Your task to perform on an android device: Search for razer thresher on walmart, select the first entry, and add it to the cart. Image 0: 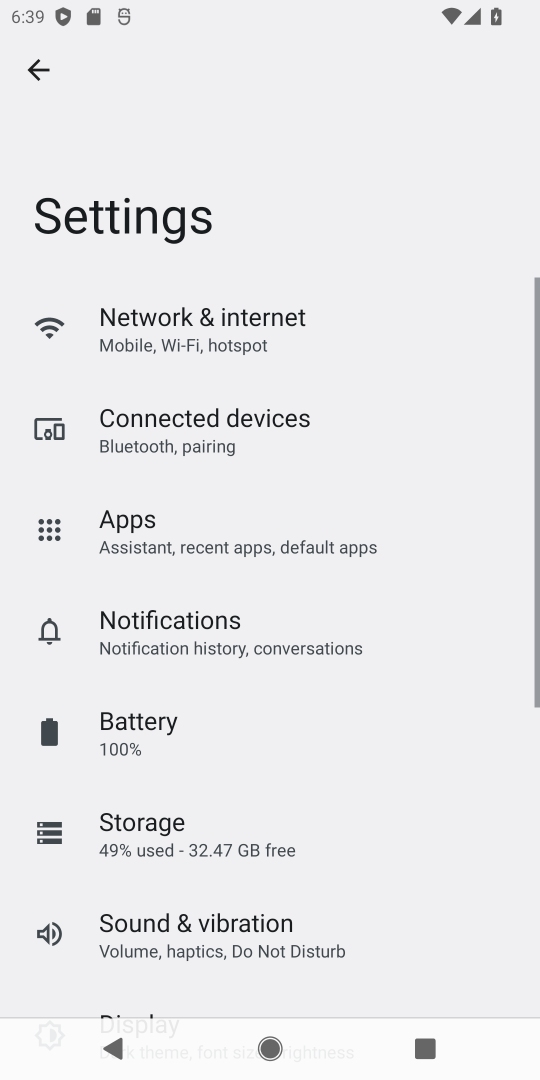
Step 0: press home button
Your task to perform on an android device: Search for razer thresher on walmart, select the first entry, and add it to the cart. Image 1: 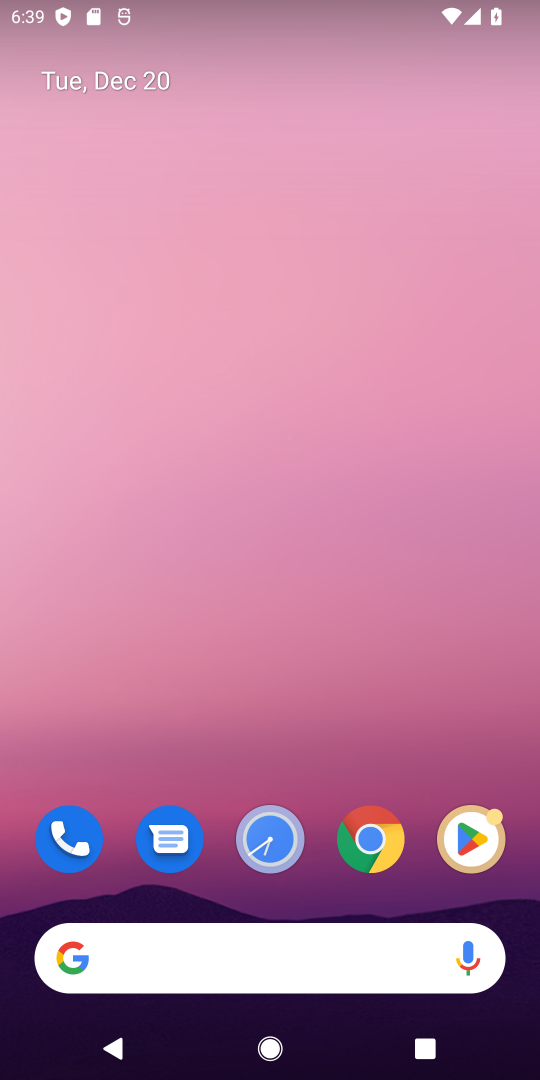
Step 1: click (264, 961)
Your task to perform on an android device: Search for razer thresher on walmart, select the first entry, and add it to the cart. Image 2: 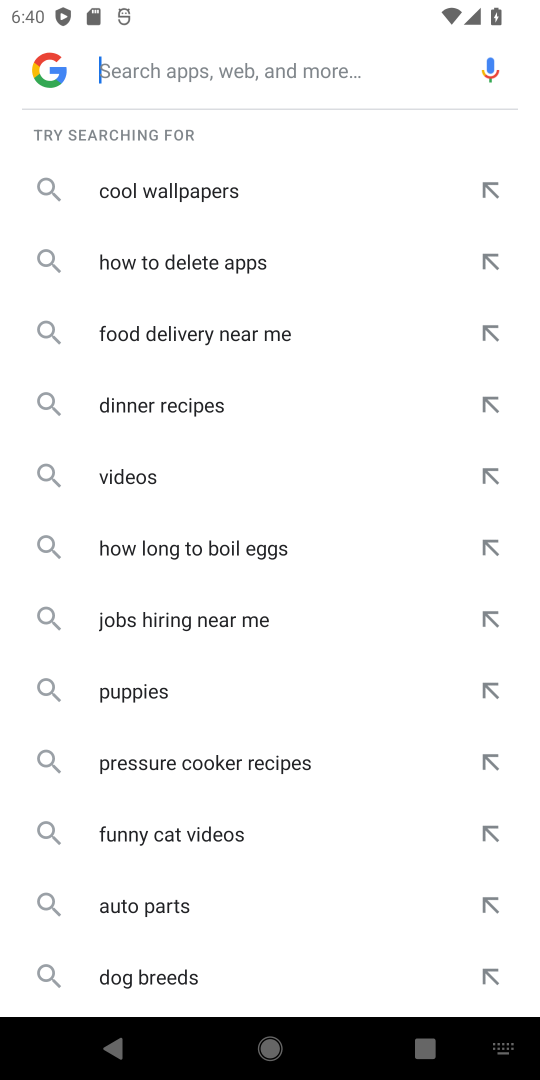
Step 2: type "walmart"
Your task to perform on an android device: Search for razer thresher on walmart, select the first entry, and add it to the cart. Image 3: 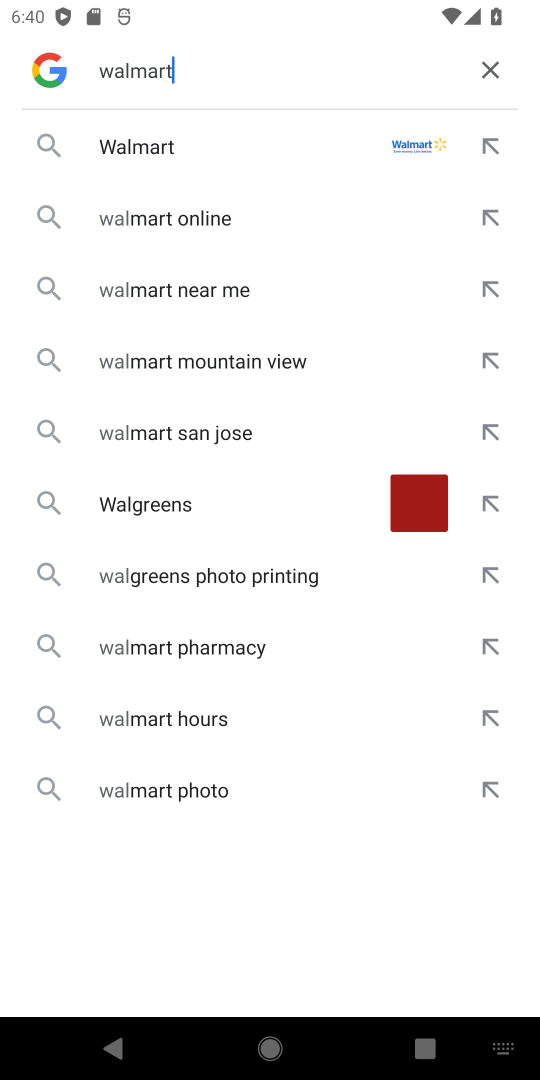
Step 3: type ""
Your task to perform on an android device: Search for razer thresher on walmart, select the first entry, and add it to the cart. Image 4: 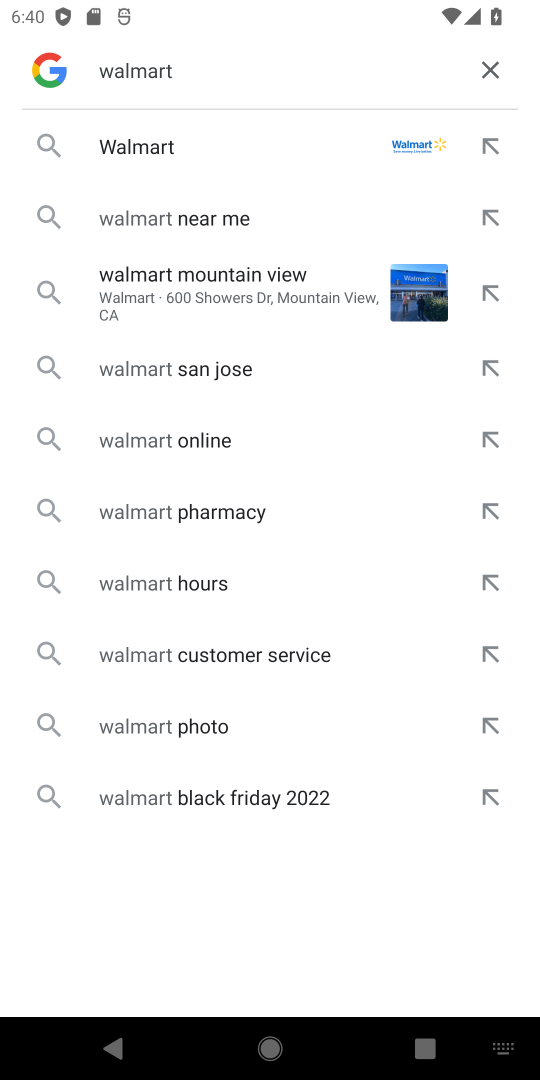
Step 4: click (160, 142)
Your task to perform on an android device: Search for razer thresher on walmart, select the first entry, and add it to the cart. Image 5: 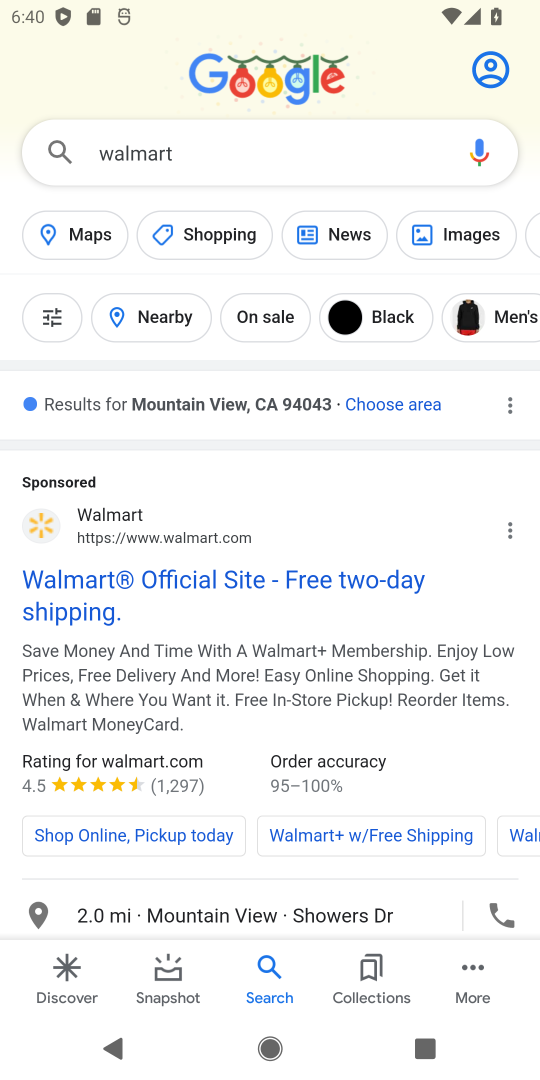
Step 5: click (117, 531)
Your task to perform on an android device: Search for razer thresher on walmart, select the first entry, and add it to the cart. Image 6: 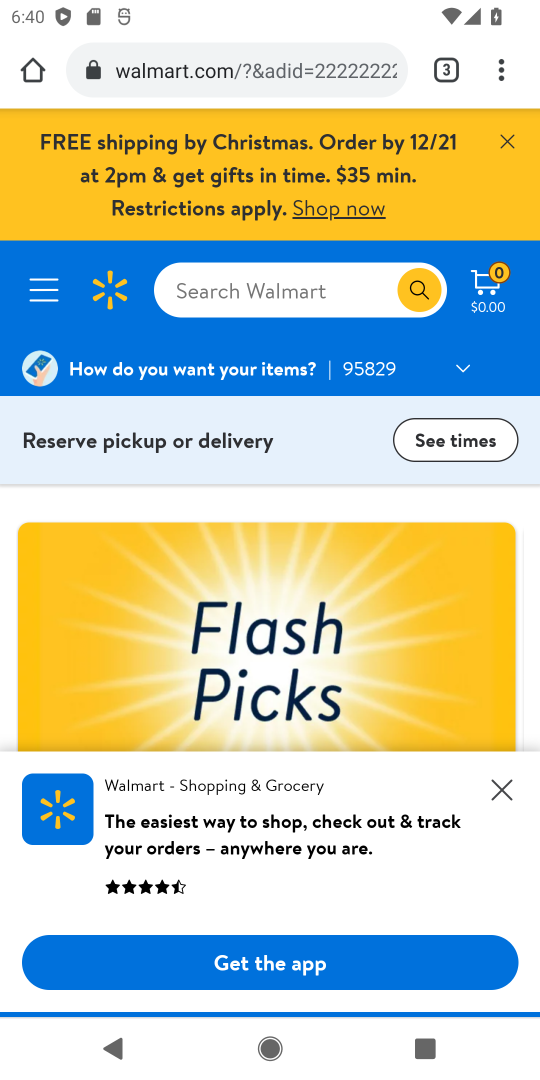
Step 6: click (499, 793)
Your task to perform on an android device: Search for razer thresher on walmart, select the first entry, and add it to the cart. Image 7: 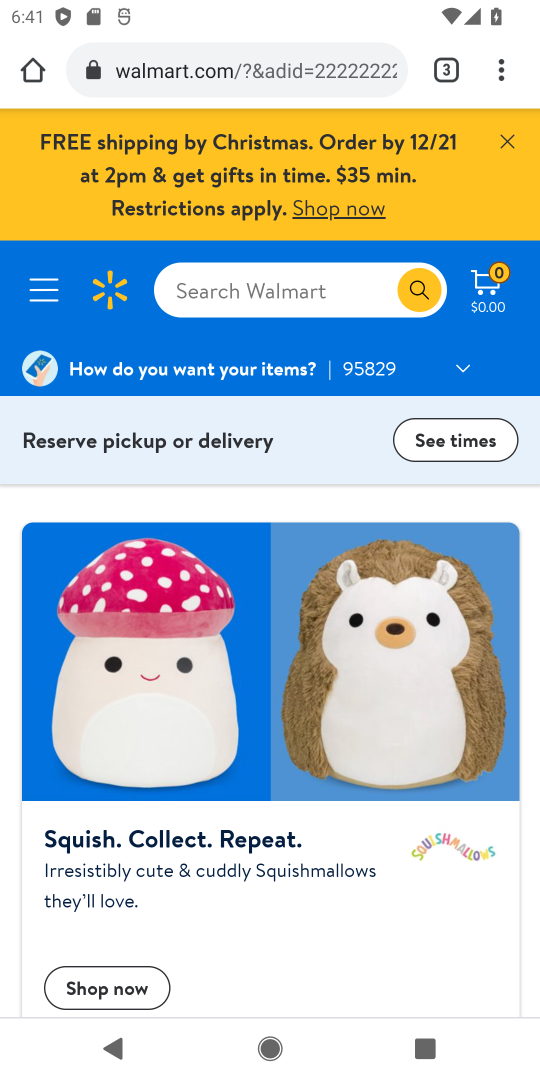
Step 7: click (280, 298)
Your task to perform on an android device: Search for razer thresher on walmart, select the first entry, and add it to the cart. Image 8: 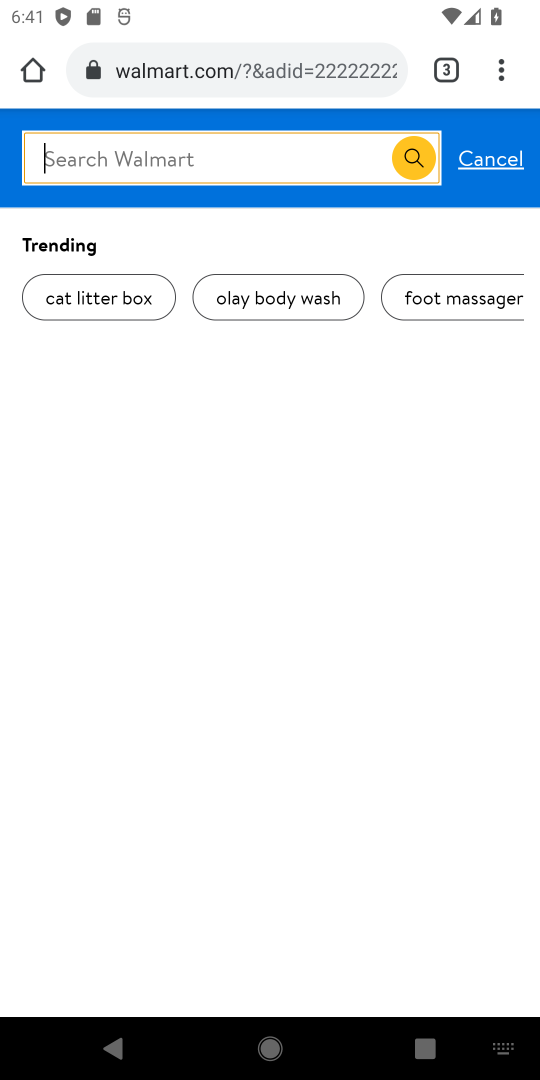
Step 8: type " razer thresher"
Your task to perform on an android device: Search for razer thresher on walmart, select the first entry, and add it to the cart. Image 9: 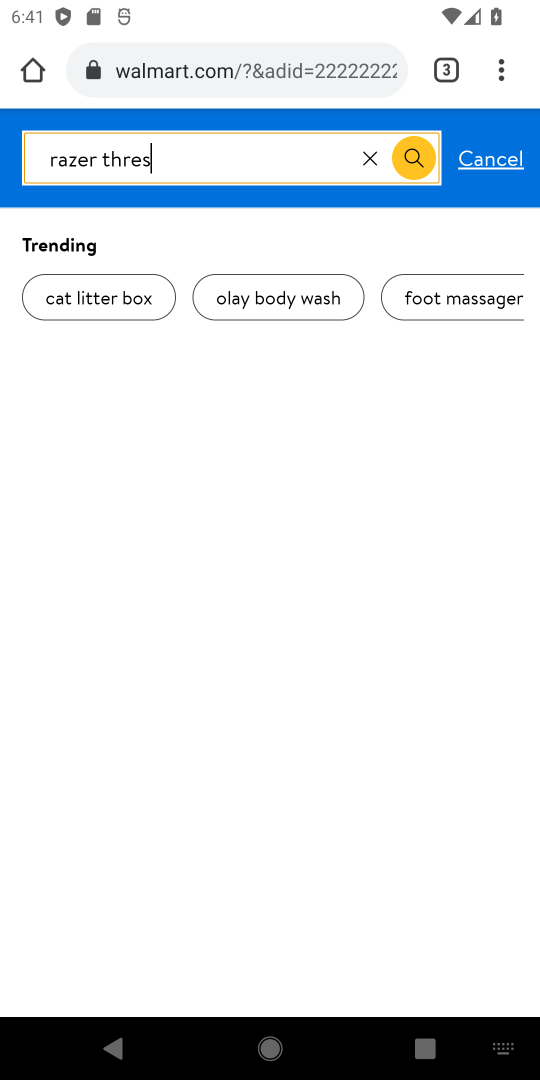
Step 9: type ""
Your task to perform on an android device: Search for razer thresher on walmart, select the first entry, and add it to the cart. Image 10: 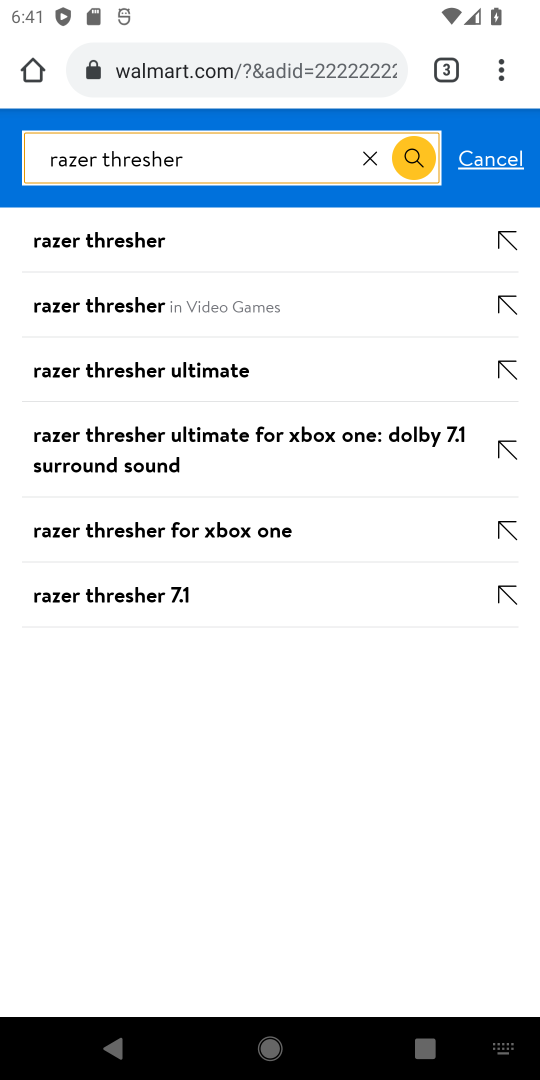
Step 10: click (127, 251)
Your task to perform on an android device: Search for razer thresher on walmart, select the first entry, and add it to the cart. Image 11: 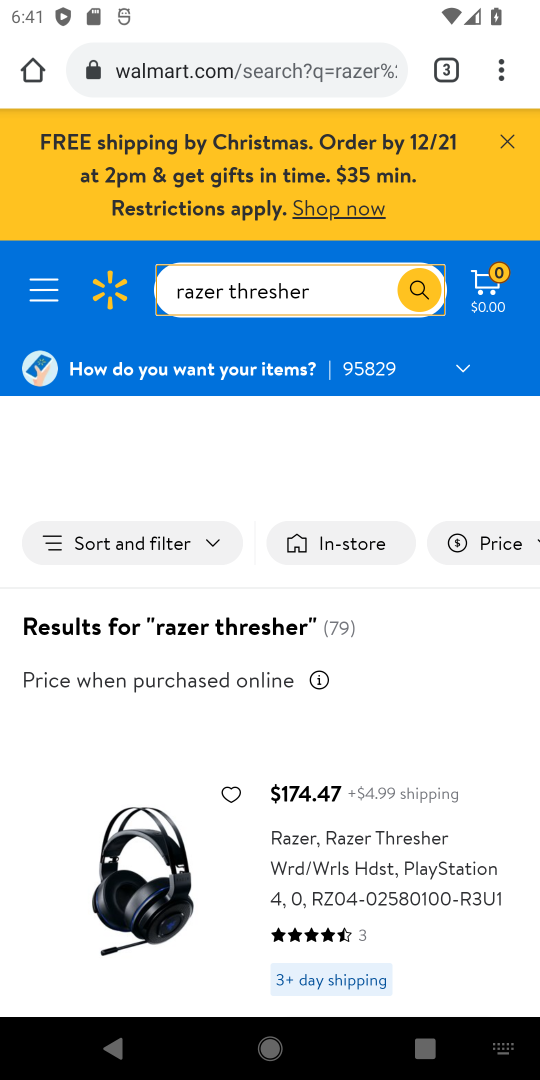
Step 11: drag from (392, 914) to (357, 573)
Your task to perform on an android device: Search for razer thresher on walmart, select the first entry, and add it to the cart. Image 12: 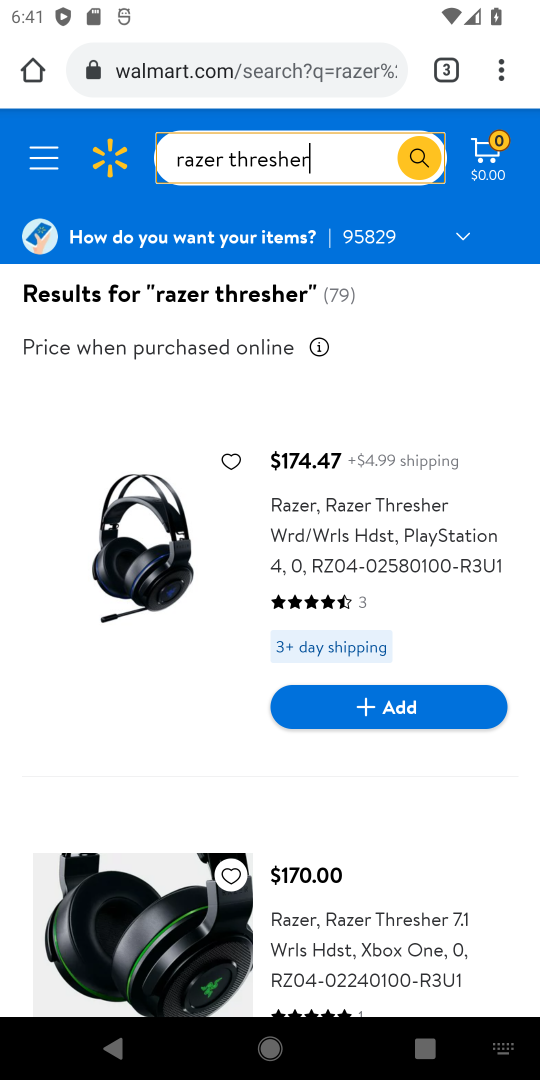
Step 12: click (376, 723)
Your task to perform on an android device: Search for razer thresher on walmart, select the first entry, and add it to the cart. Image 13: 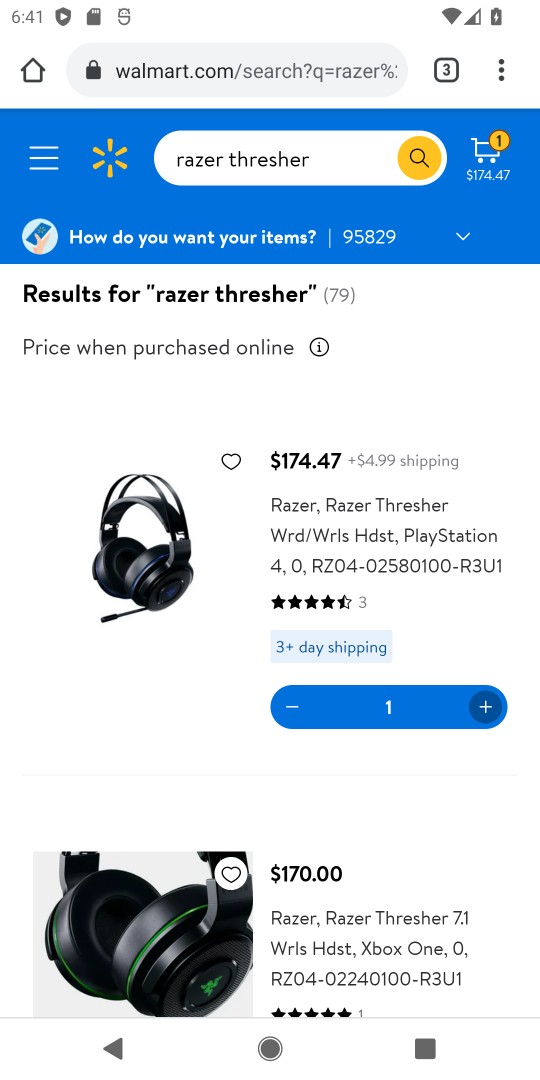
Step 13: task complete